Your task to perform on an android device: add a contact in the contacts app Image 0: 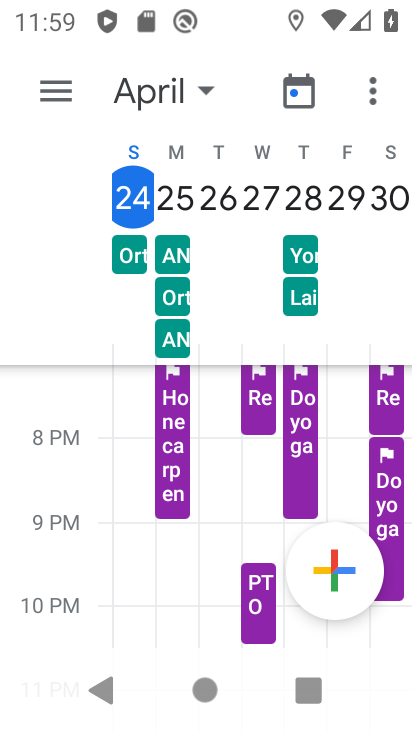
Step 0: press home button
Your task to perform on an android device: add a contact in the contacts app Image 1: 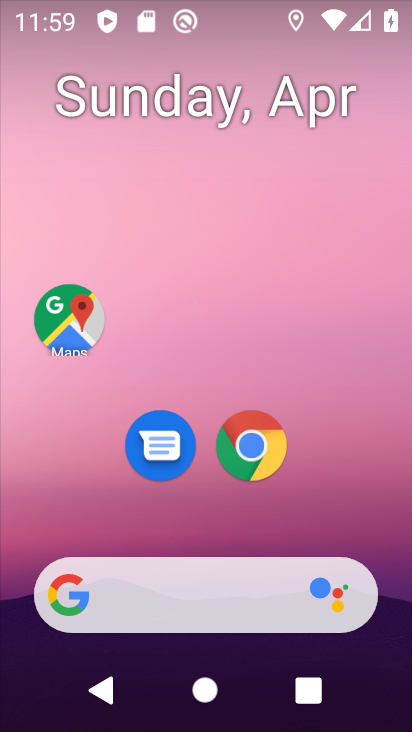
Step 1: drag from (388, 548) to (295, 25)
Your task to perform on an android device: add a contact in the contacts app Image 2: 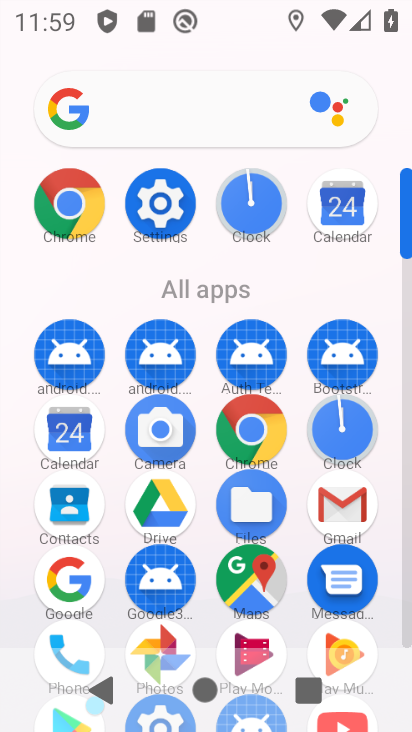
Step 2: click (68, 499)
Your task to perform on an android device: add a contact in the contacts app Image 3: 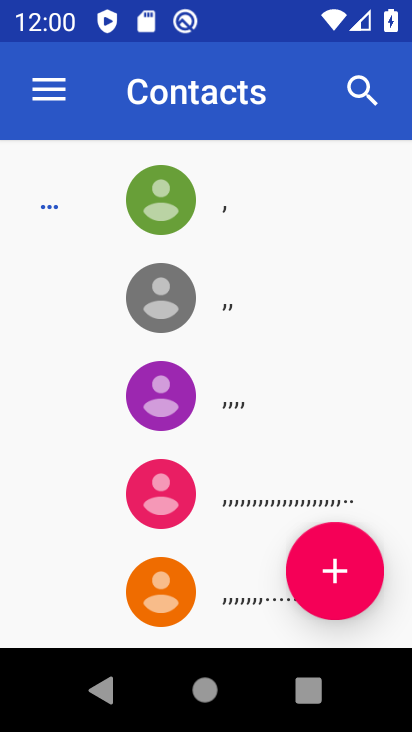
Step 3: click (349, 570)
Your task to perform on an android device: add a contact in the contacts app Image 4: 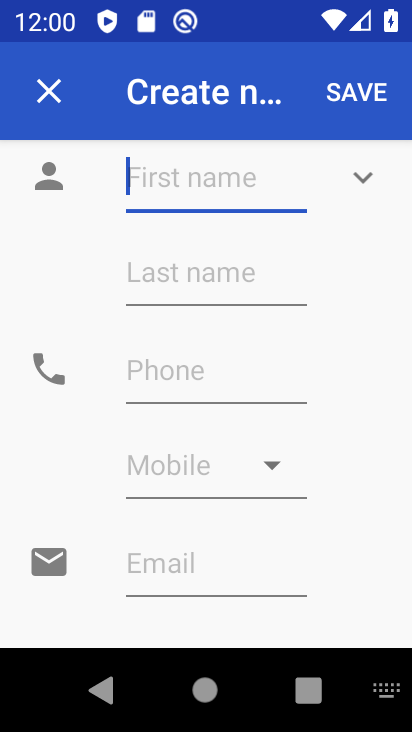
Step 4: type "dyeyey"
Your task to perform on an android device: add a contact in the contacts app Image 5: 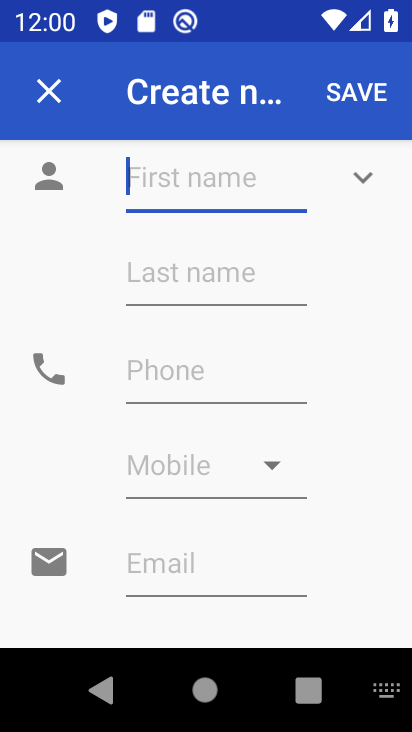
Step 5: click (205, 371)
Your task to perform on an android device: add a contact in the contacts app Image 6: 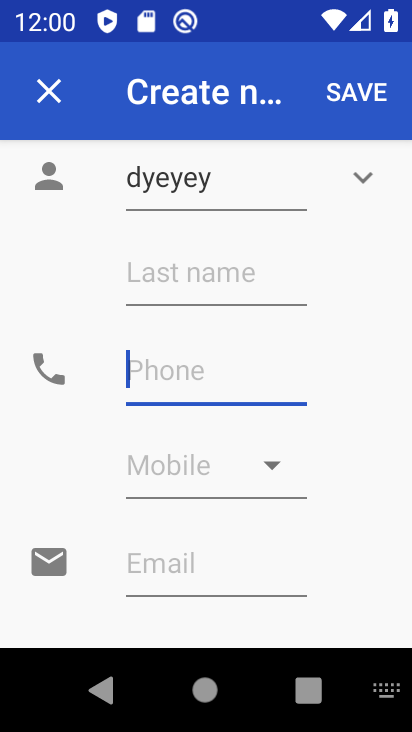
Step 6: type "3463463466"
Your task to perform on an android device: add a contact in the contacts app Image 7: 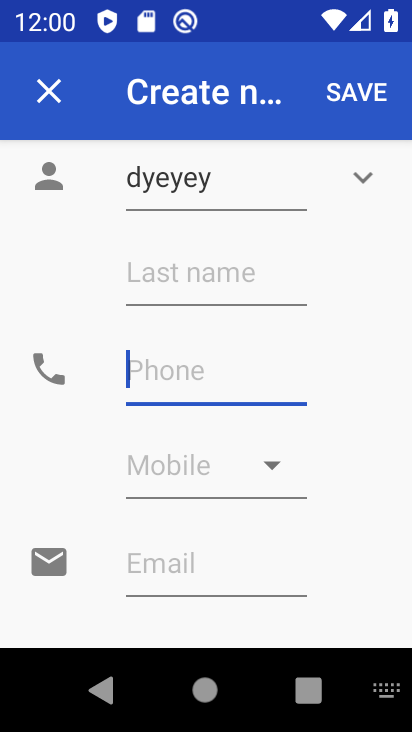
Step 7: click (360, 82)
Your task to perform on an android device: add a contact in the contacts app Image 8: 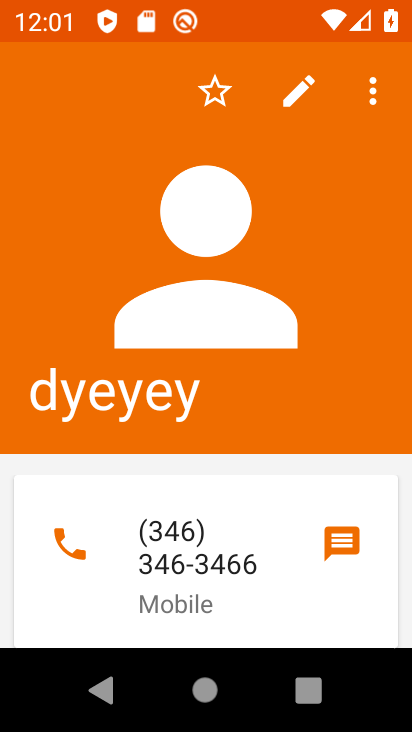
Step 8: task complete